Your task to perform on an android device: Open sound settings Image 0: 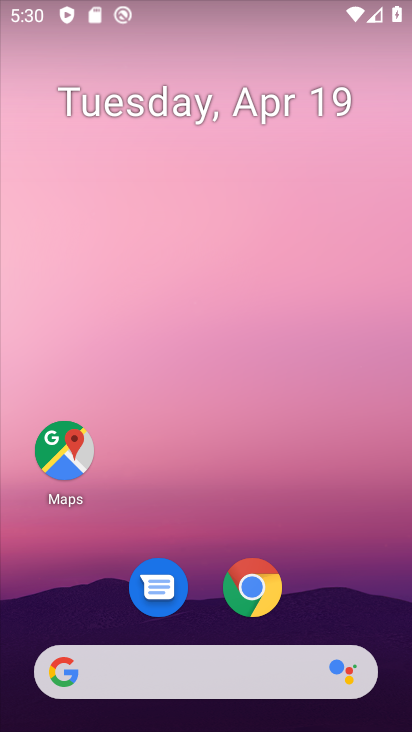
Step 0: drag from (257, 2) to (304, 727)
Your task to perform on an android device: Open sound settings Image 1: 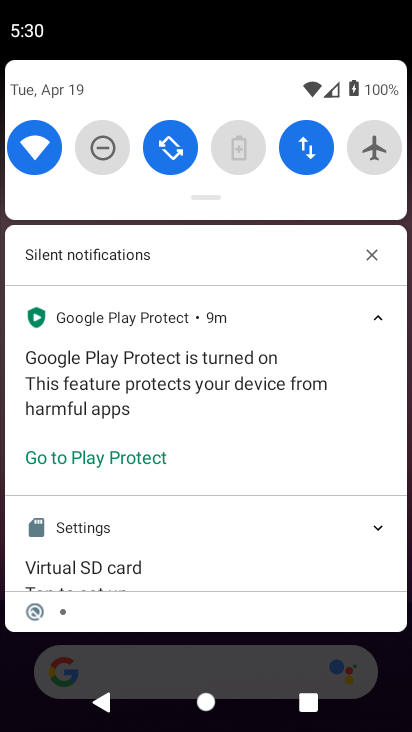
Step 1: drag from (207, 77) to (272, 689)
Your task to perform on an android device: Open sound settings Image 2: 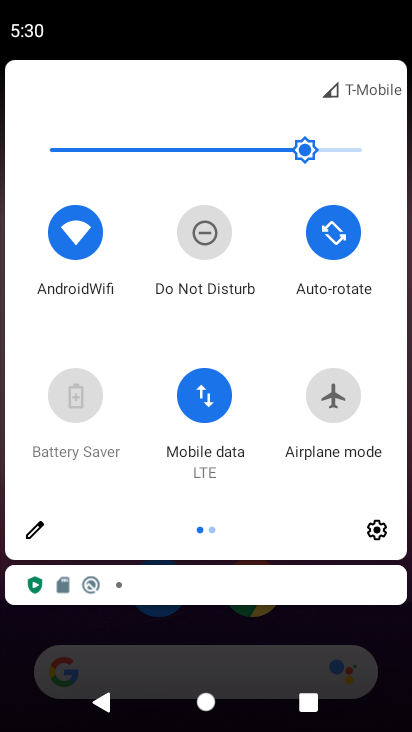
Step 2: click (363, 531)
Your task to perform on an android device: Open sound settings Image 3: 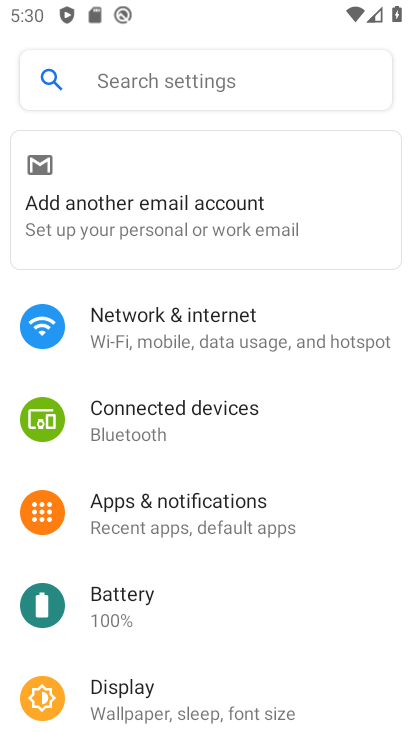
Step 3: drag from (155, 647) to (156, 295)
Your task to perform on an android device: Open sound settings Image 4: 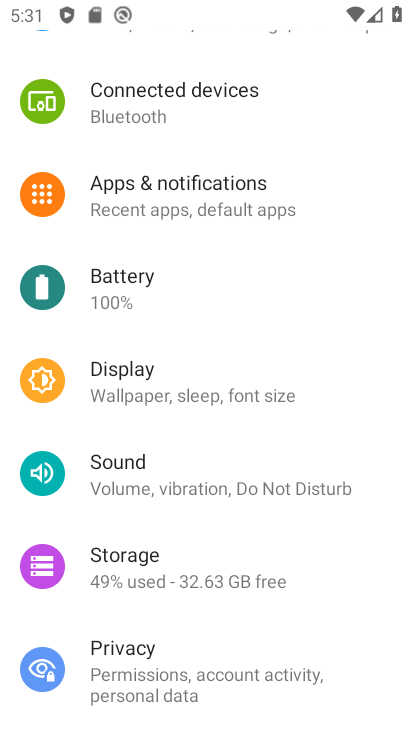
Step 4: click (132, 475)
Your task to perform on an android device: Open sound settings Image 5: 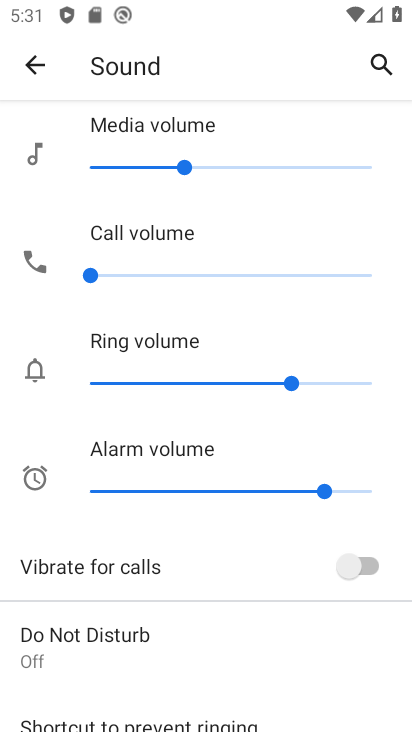
Step 5: task complete